Your task to perform on an android device: turn off location Image 0: 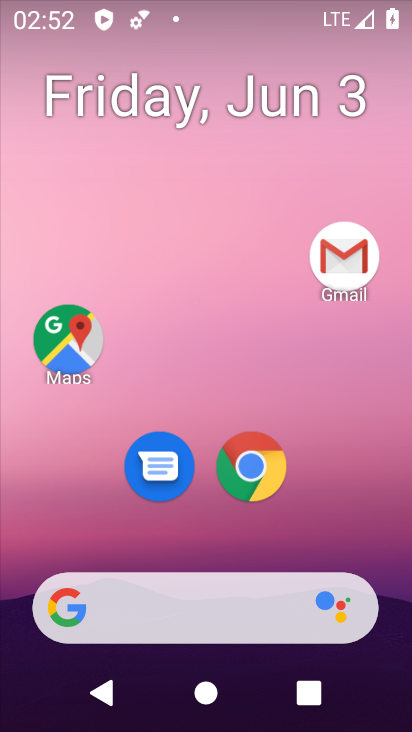
Step 0: drag from (250, 509) to (124, 89)
Your task to perform on an android device: turn off location Image 1: 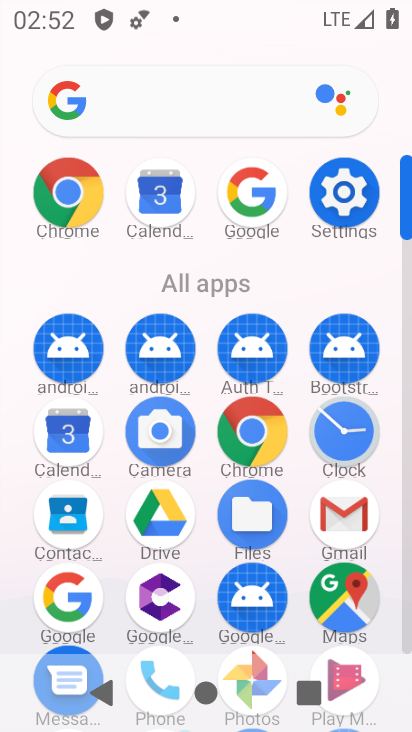
Step 1: drag from (405, 220) to (407, 278)
Your task to perform on an android device: turn off location Image 2: 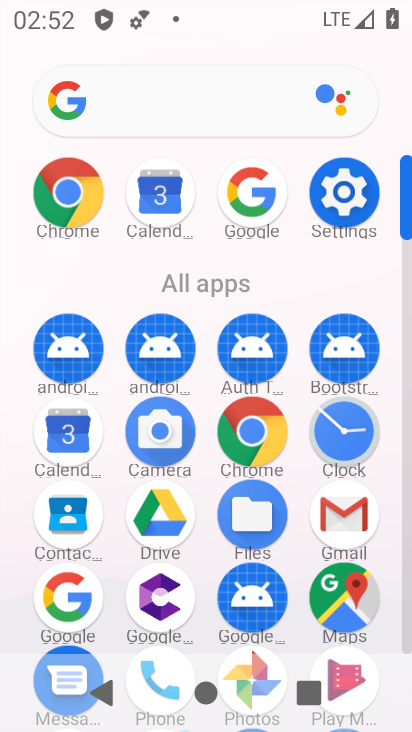
Step 2: drag from (402, 222) to (411, 284)
Your task to perform on an android device: turn off location Image 3: 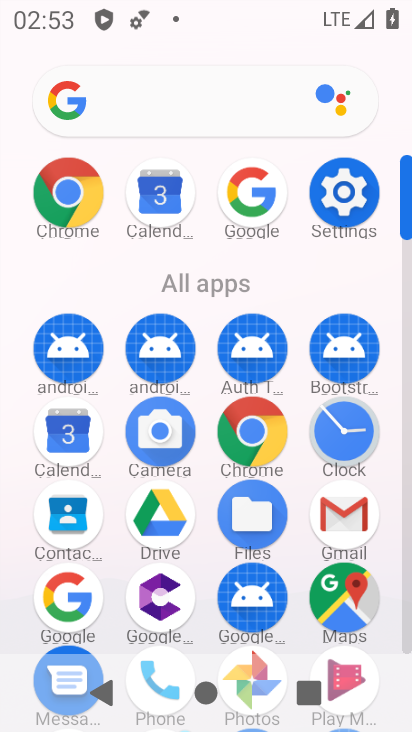
Step 3: click (411, 224)
Your task to perform on an android device: turn off location Image 4: 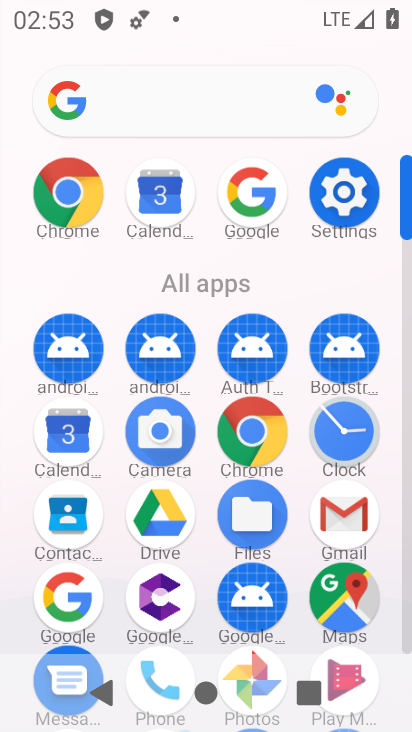
Step 4: drag from (406, 209) to (399, 259)
Your task to perform on an android device: turn off location Image 5: 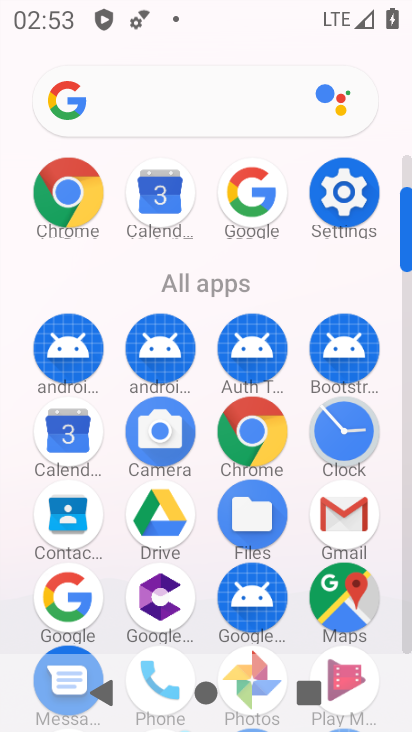
Step 5: click (407, 295)
Your task to perform on an android device: turn off location Image 6: 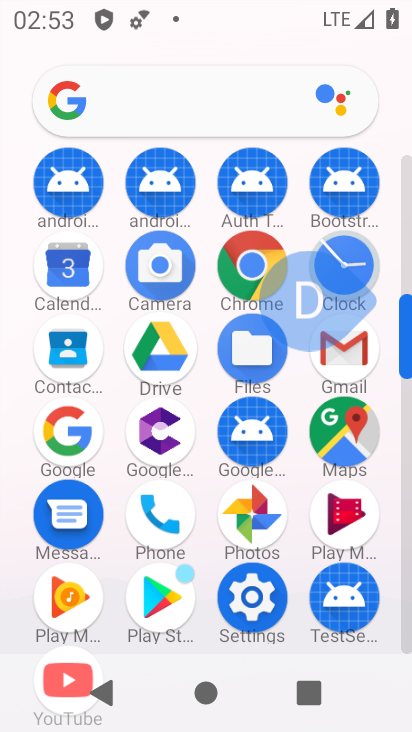
Step 6: click (406, 294)
Your task to perform on an android device: turn off location Image 7: 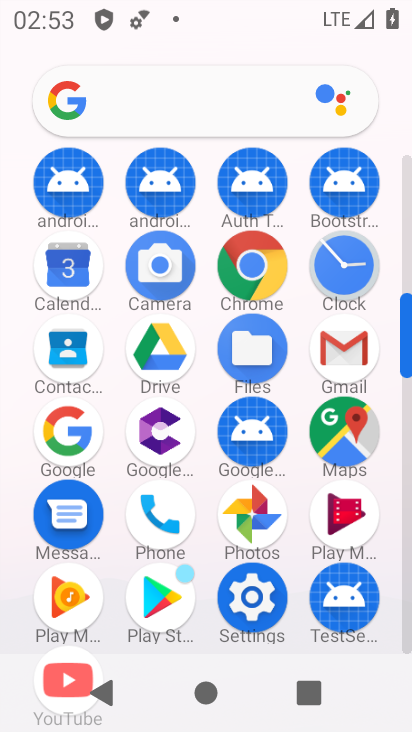
Step 7: drag from (404, 327) to (391, 225)
Your task to perform on an android device: turn off location Image 8: 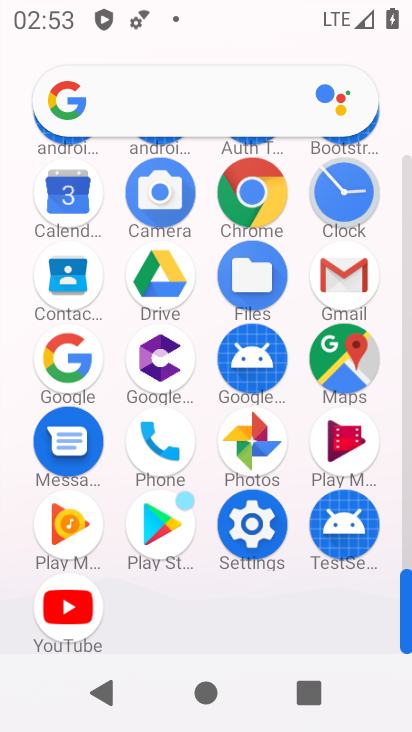
Step 8: click (405, 239)
Your task to perform on an android device: turn off location Image 9: 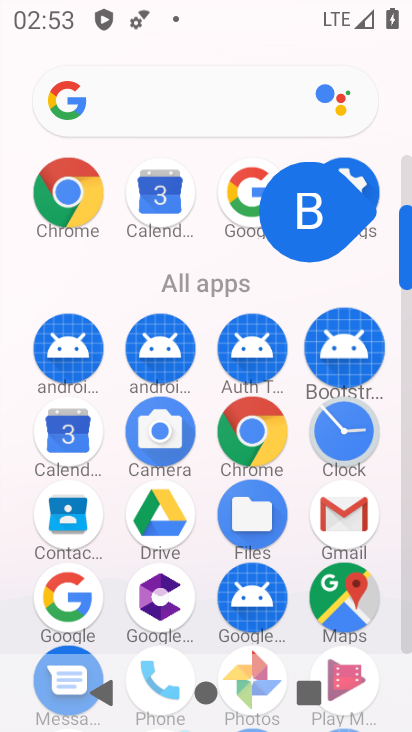
Step 9: click (405, 239)
Your task to perform on an android device: turn off location Image 10: 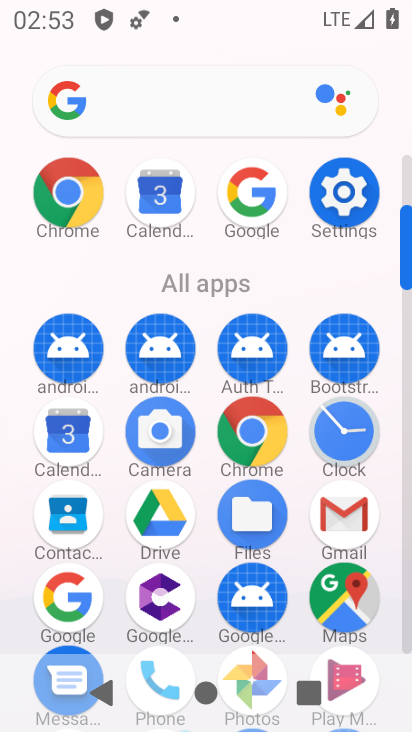
Step 10: drag from (400, 270) to (399, 220)
Your task to perform on an android device: turn off location Image 11: 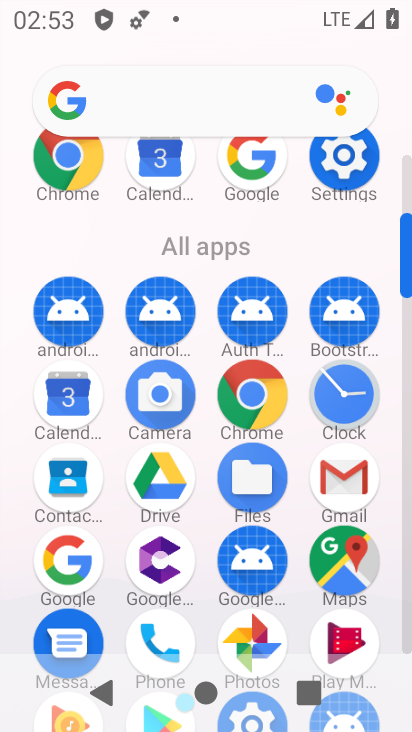
Step 11: click (408, 178)
Your task to perform on an android device: turn off location Image 12: 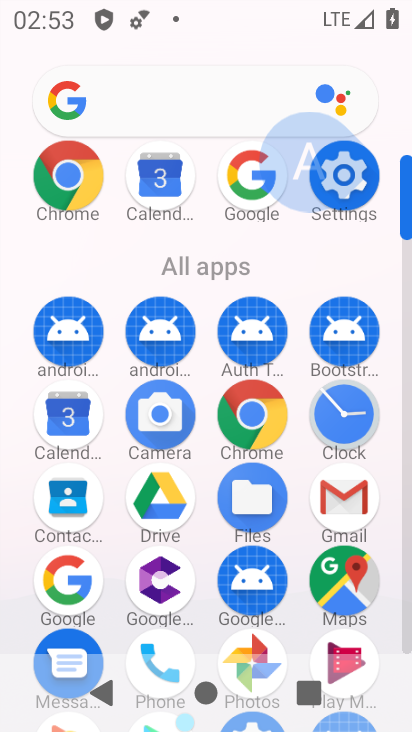
Step 12: click (408, 178)
Your task to perform on an android device: turn off location Image 13: 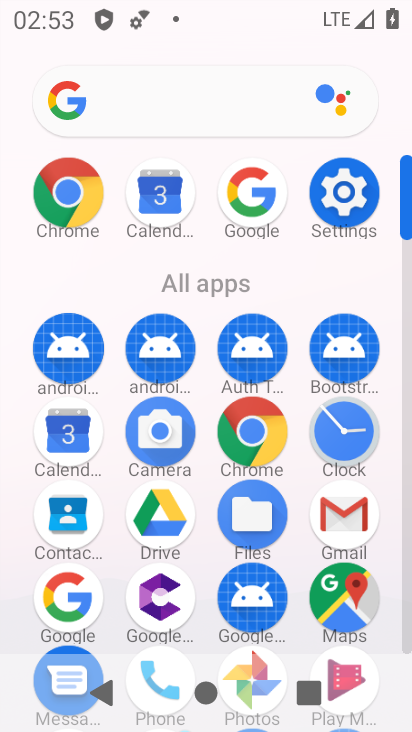
Step 13: click (409, 177)
Your task to perform on an android device: turn off location Image 14: 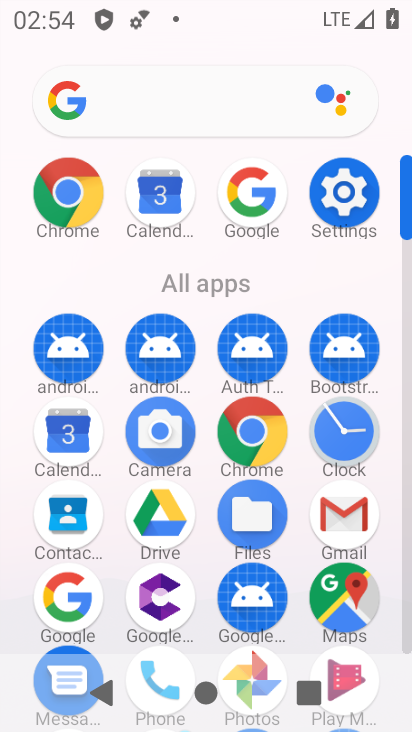
Step 14: click (338, 191)
Your task to perform on an android device: turn off location Image 15: 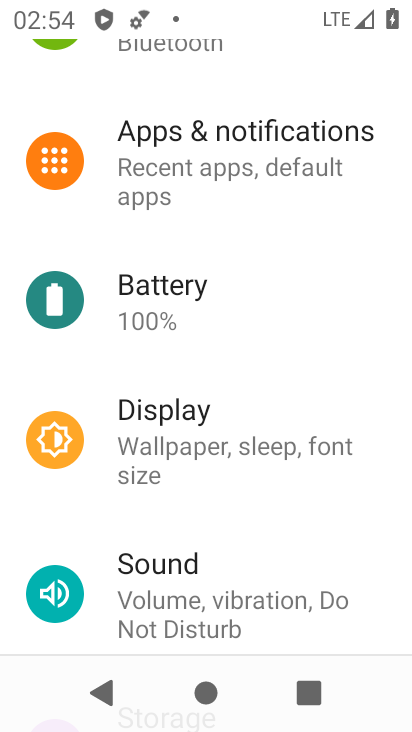
Step 15: drag from (221, 486) to (215, 120)
Your task to perform on an android device: turn off location Image 16: 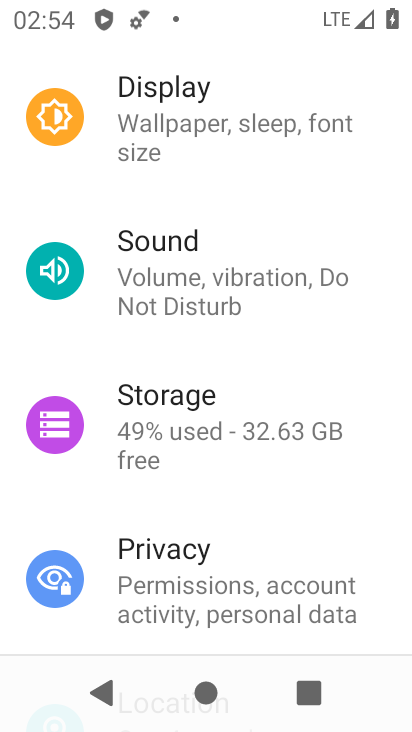
Step 16: drag from (229, 509) to (247, 209)
Your task to perform on an android device: turn off location Image 17: 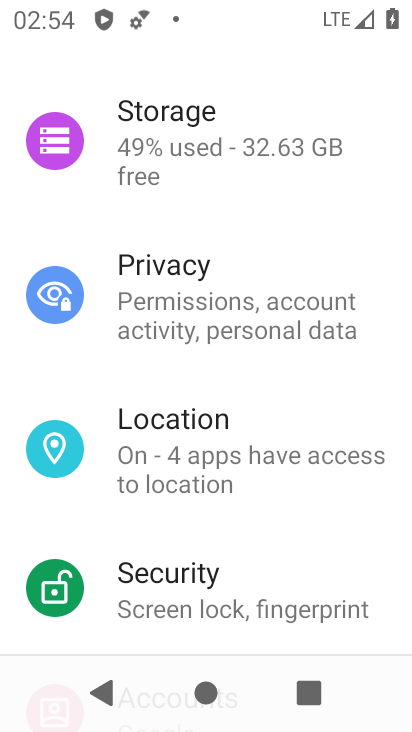
Step 17: click (193, 448)
Your task to perform on an android device: turn off location Image 18: 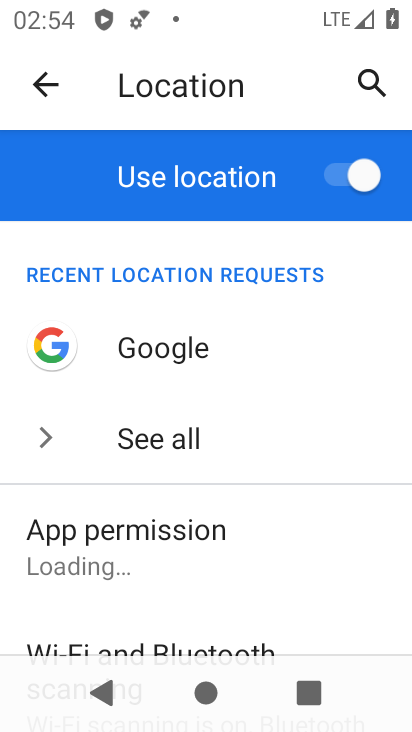
Step 18: drag from (219, 583) to (199, 397)
Your task to perform on an android device: turn off location Image 19: 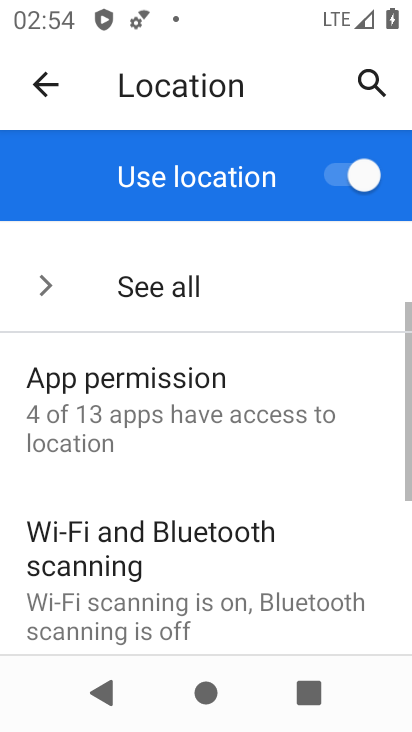
Step 19: drag from (199, 292) to (207, 510)
Your task to perform on an android device: turn off location Image 20: 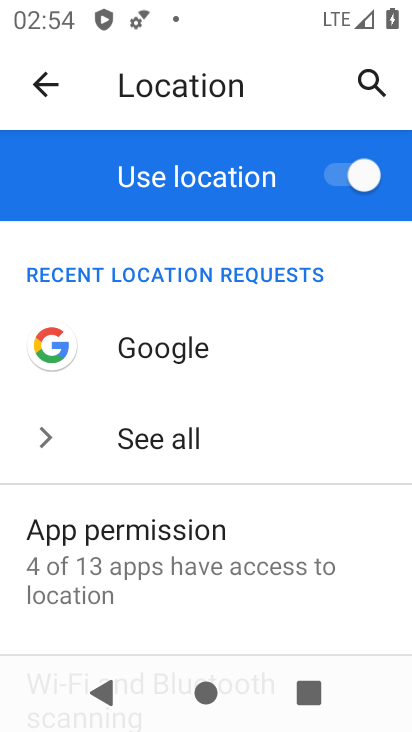
Step 20: drag from (205, 568) to (241, 259)
Your task to perform on an android device: turn off location Image 21: 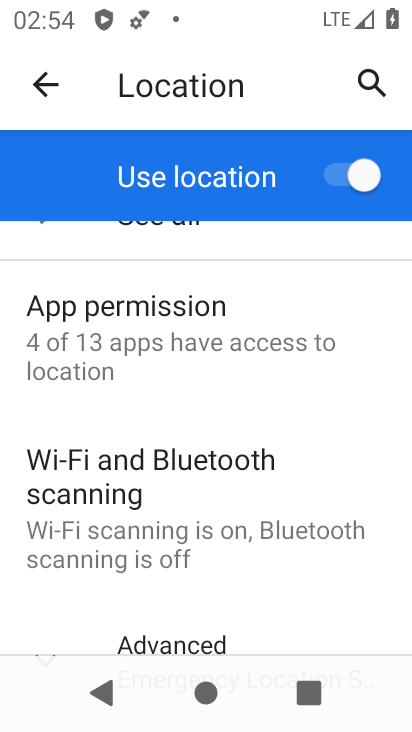
Step 21: drag from (236, 264) to (219, 501)
Your task to perform on an android device: turn off location Image 22: 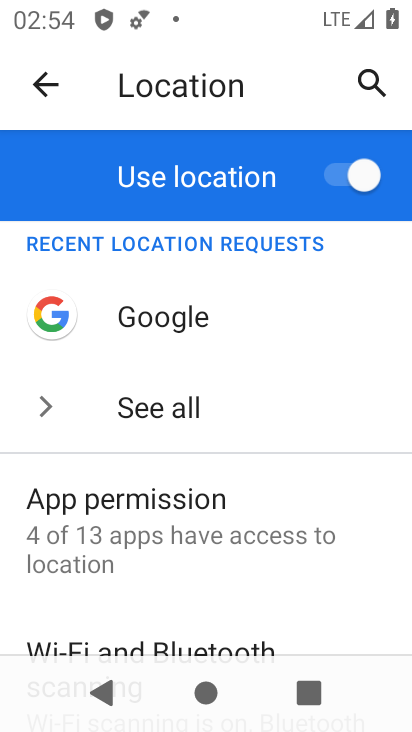
Step 22: drag from (211, 487) to (221, 285)
Your task to perform on an android device: turn off location Image 23: 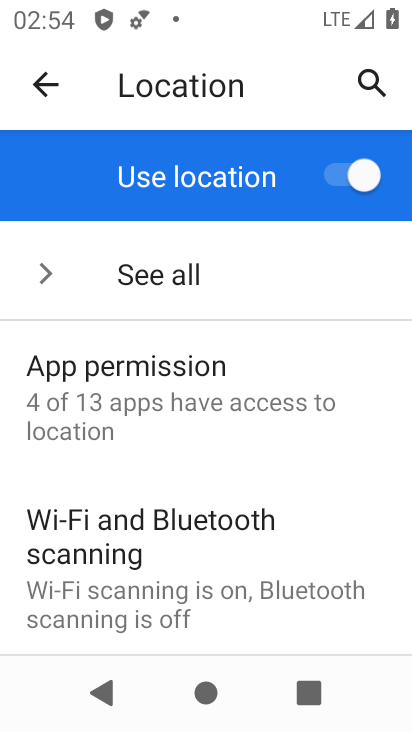
Step 23: click (337, 184)
Your task to perform on an android device: turn off location Image 24: 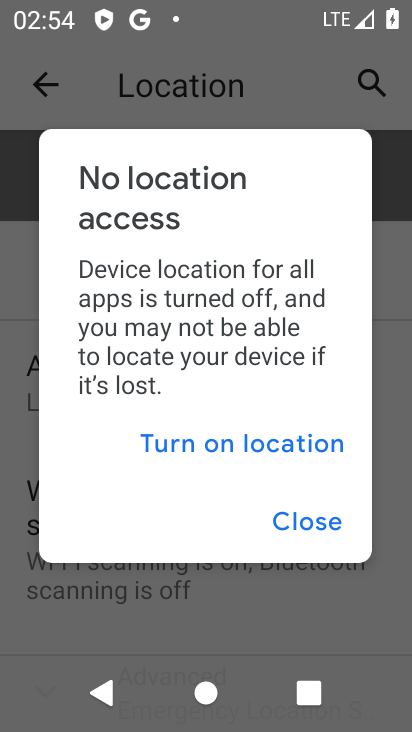
Step 24: click (310, 519)
Your task to perform on an android device: turn off location Image 25: 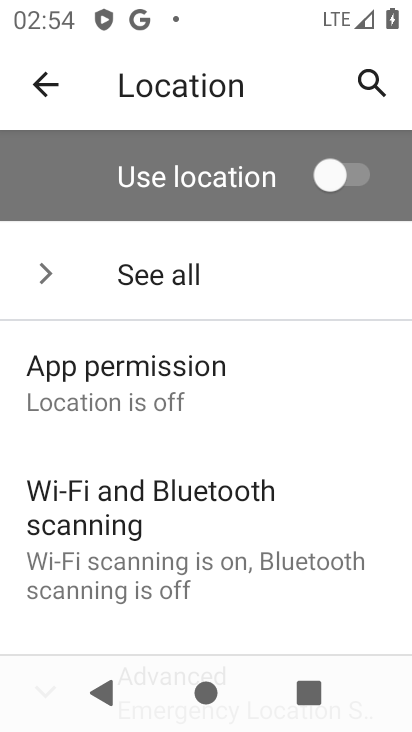
Step 25: task complete